Your task to perform on an android device: Open notification settings Image 0: 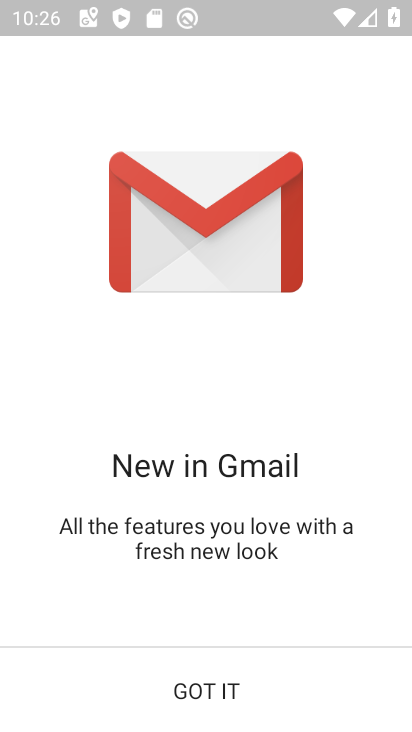
Step 0: press home button
Your task to perform on an android device: Open notification settings Image 1: 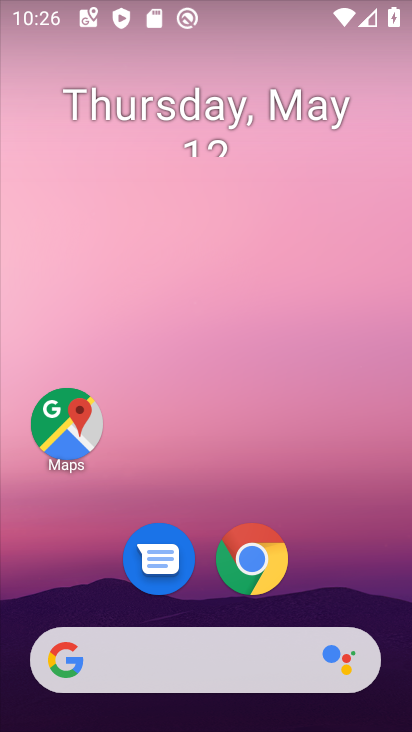
Step 1: drag from (210, 608) to (218, 188)
Your task to perform on an android device: Open notification settings Image 2: 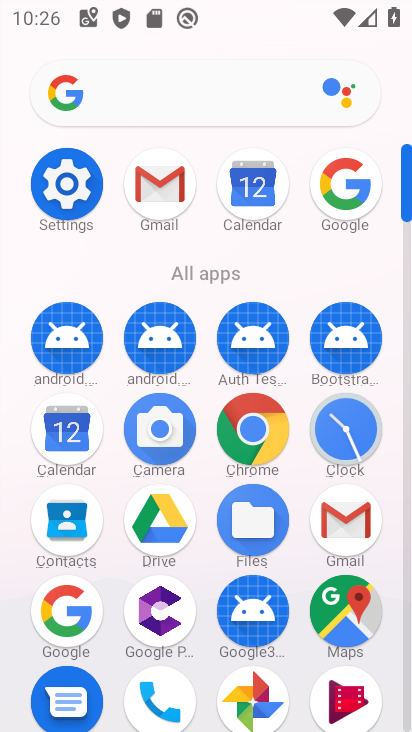
Step 2: click (78, 197)
Your task to perform on an android device: Open notification settings Image 3: 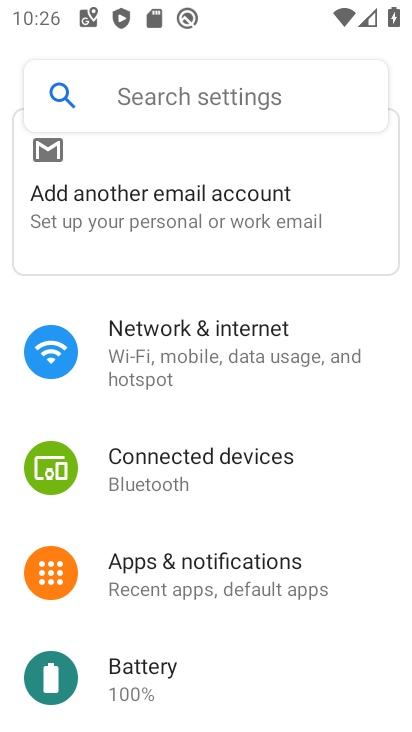
Step 3: click (212, 566)
Your task to perform on an android device: Open notification settings Image 4: 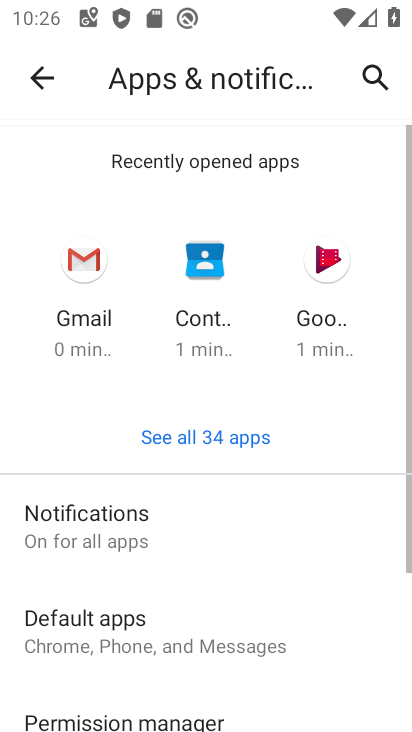
Step 4: click (211, 565)
Your task to perform on an android device: Open notification settings Image 5: 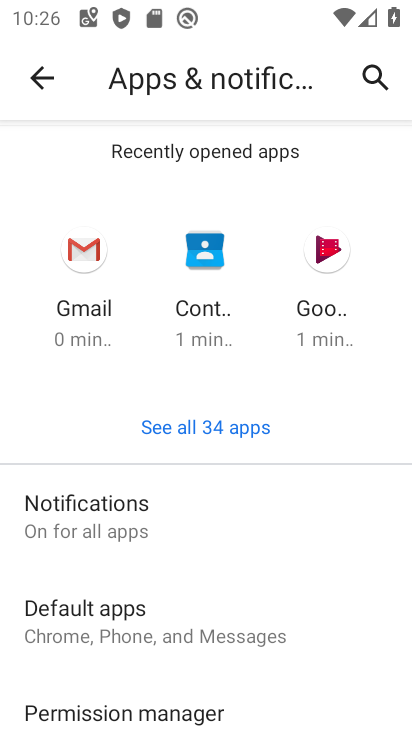
Step 5: drag from (210, 530) to (258, 257)
Your task to perform on an android device: Open notification settings Image 6: 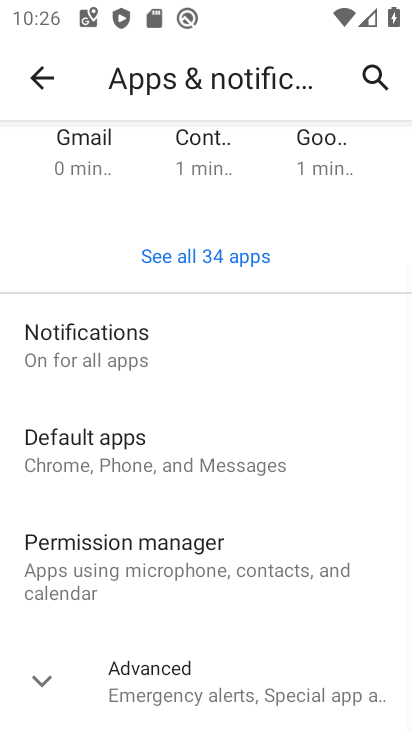
Step 6: click (204, 322)
Your task to perform on an android device: Open notification settings Image 7: 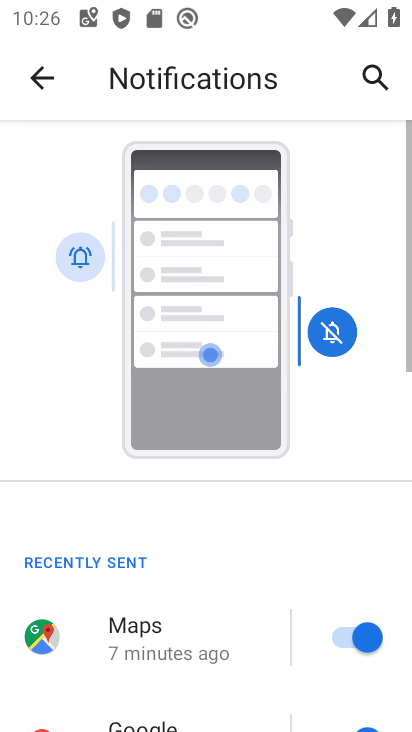
Step 7: task complete